Your task to perform on an android device: Open Chrome and go to settings Image 0: 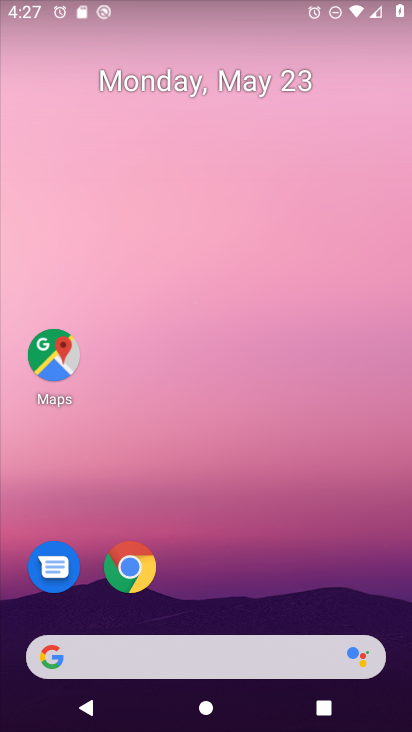
Step 0: click (134, 568)
Your task to perform on an android device: Open Chrome and go to settings Image 1: 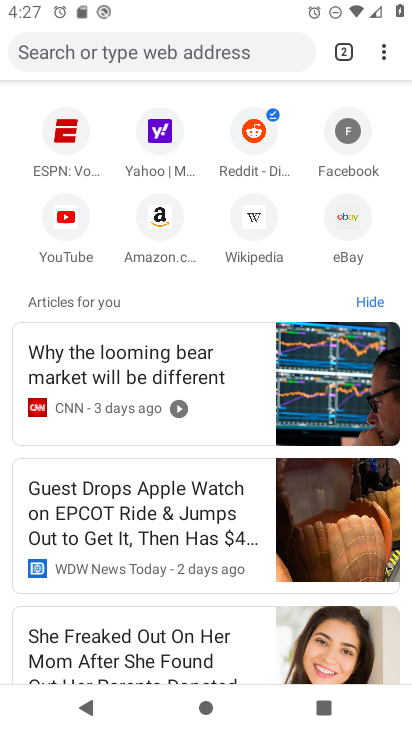
Step 1: click (381, 59)
Your task to perform on an android device: Open Chrome and go to settings Image 2: 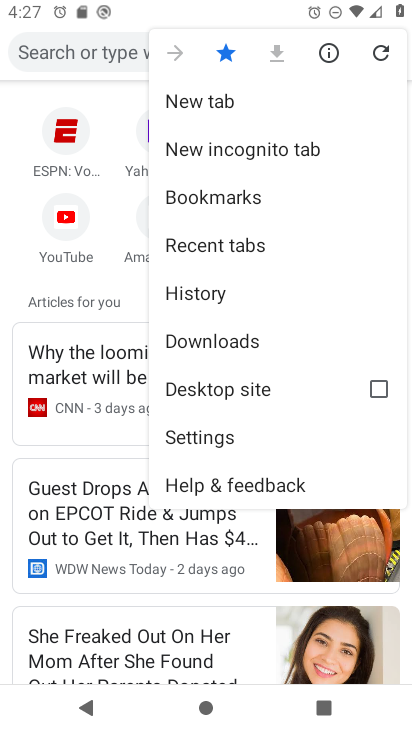
Step 2: click (194, 430)
Your task to perform on an android device: Open Chrome and go to settings Image 3: 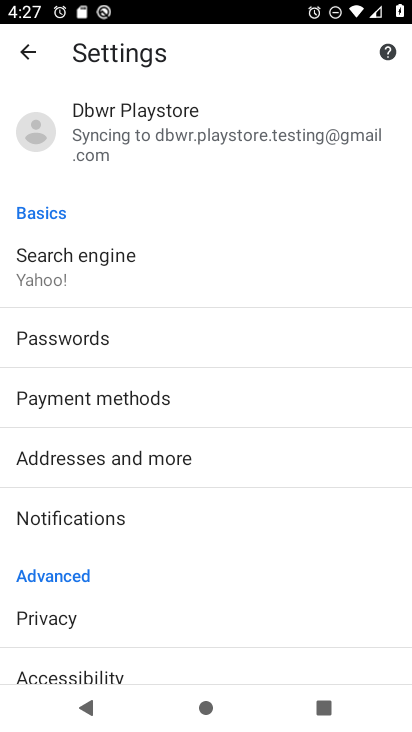
Step 3: task complete